Your task to perform on an android device: star an email in the gmail app Image 0: 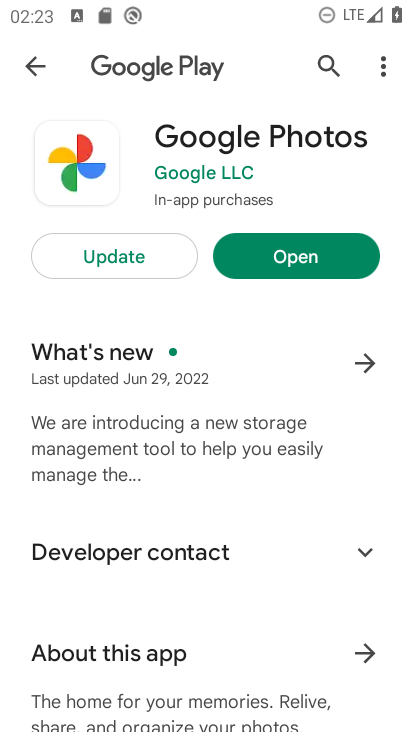
Step 0: press home button
Your task to perform on an android device: star an email in the gmail app Image 1: 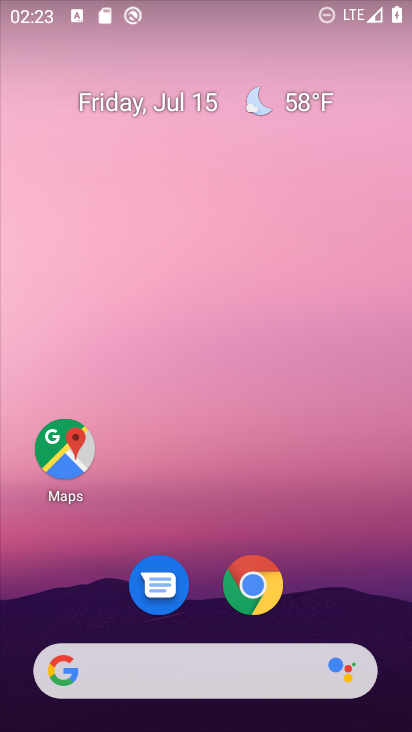
Step 1: drag from (334, 575) to (343, 70)
Your task to perform on an android device: star an email in the gmail app Image 2: 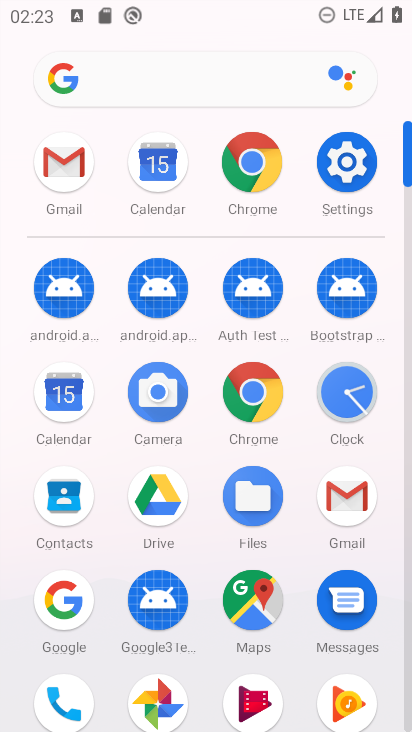
Step 2: click (65, 167)
Your task to perform on an android device: star an email in the gmail app Image 3: 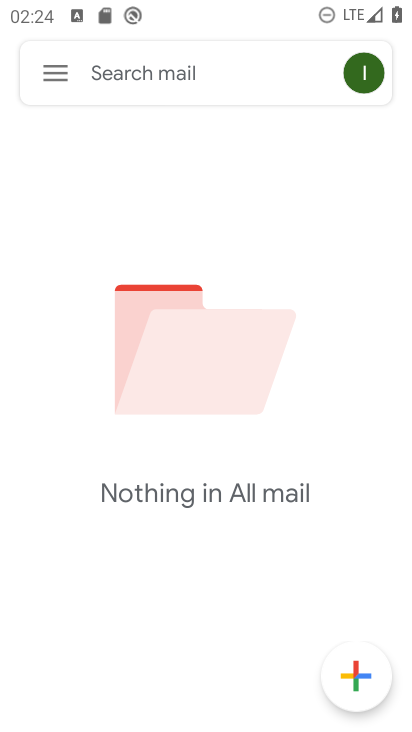
Step 3: click (57, 70)
Your task to perform on an android device: star an email in the gmail app Image 4: 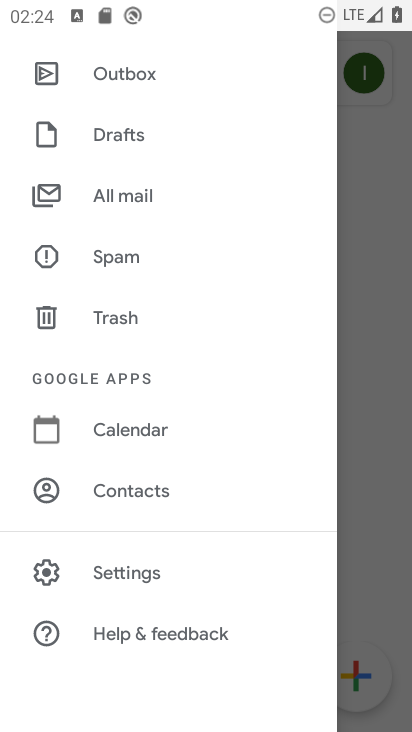
Step 4: click (370, 252)
Your task to perform on an android device: star an email in the gmail app Image 5: 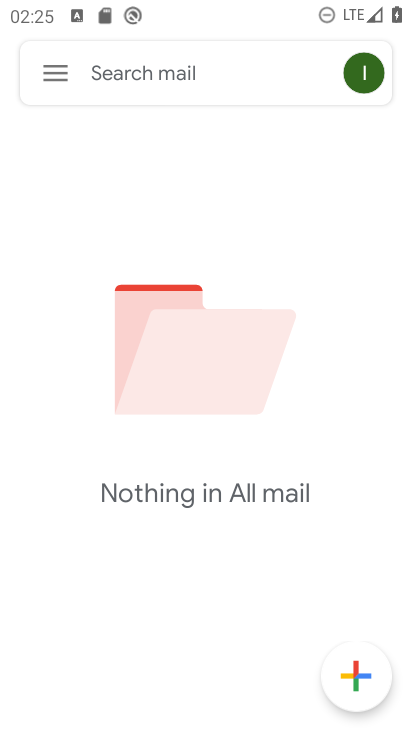
Step 5: task complete